Your task to perform on an android device: Search for hotels in Seattle Image 0: 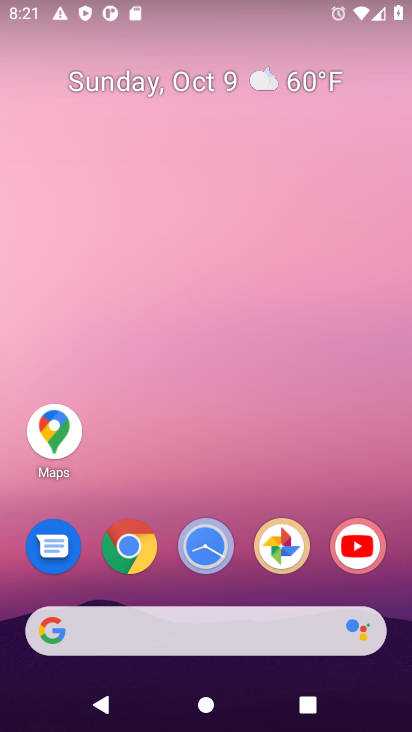
Step 0: click (123, 559)
Your task to perform on an android device: Search for hotels in Seattle Image 1: 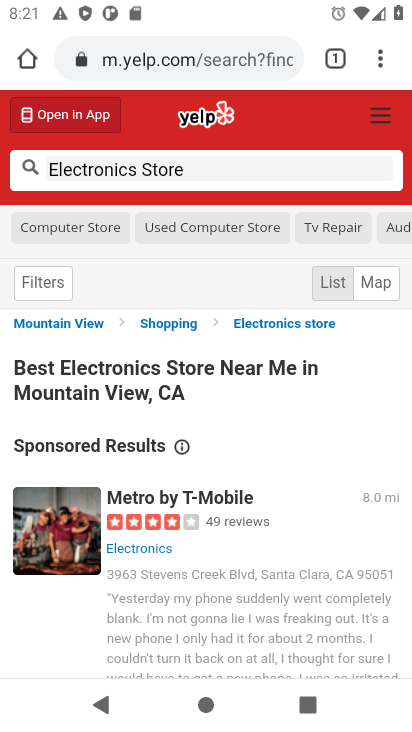
Step 1: click (213, 59)
Your task to perform on an android device: Search for hotels in Seattle Image 2: 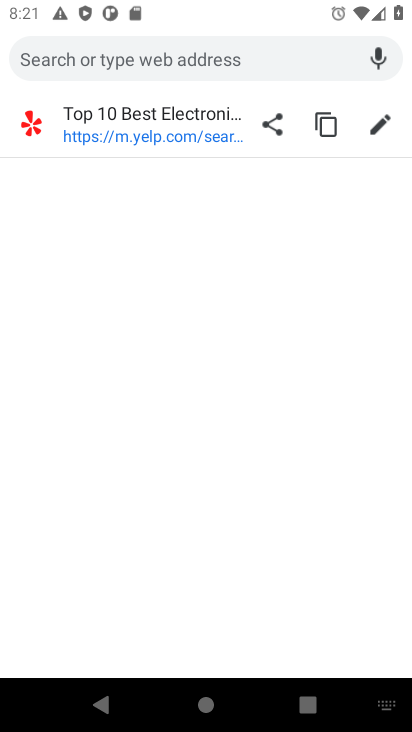
Step 2: type "hotels in seattle"
Your task to perform on an android device: Search for hotels in Seattle Image 3: 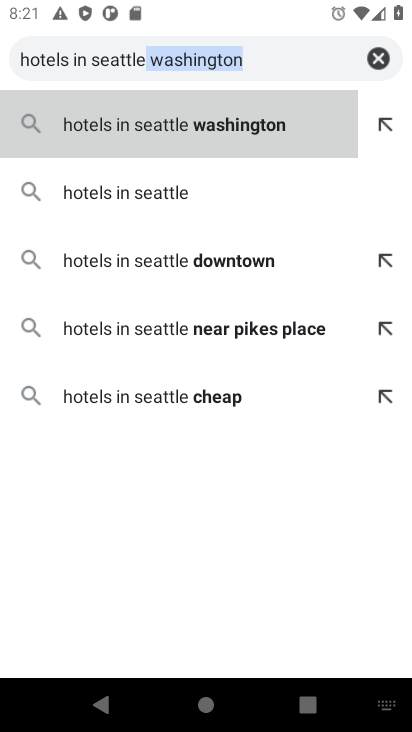
Step 3: press enter
Your task to perform on an android device: Search for hotels in Seattle Image 4: 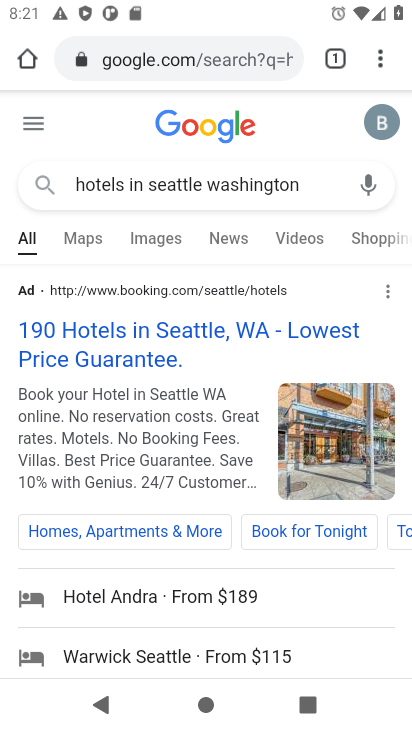
Step 4: drag from (178, 424) to (185, 360)
Your task to perform on an android device: Search for hotels in Seattle Image 5: 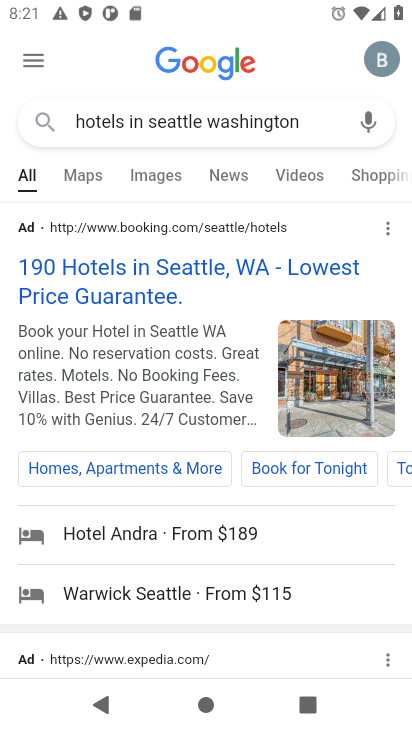
Step 5: click (151, 301)
Your task to perform on an android device: Search for hotels in Seattle Image 6: 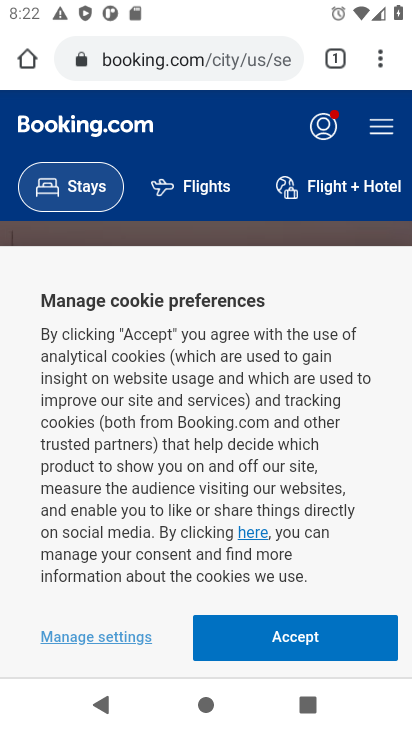
Step 6: click (296, 650)
Your task to perform on an android device: Search for hotels in Seattle Image 7: 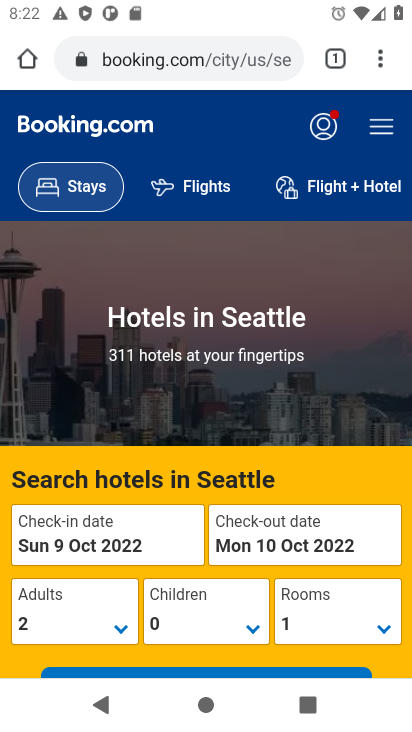
Step 7: drag from (290, 541) to (284, 332)
Your task to perform on an android device: Search for hotels in Seattle Image 8: 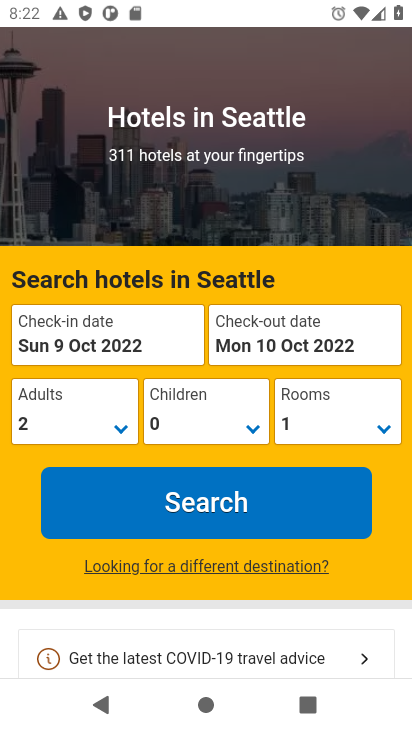
Step 8: click (272, 509)
Your task to perform on an android device: Search for hotels in Seattle Image 9: 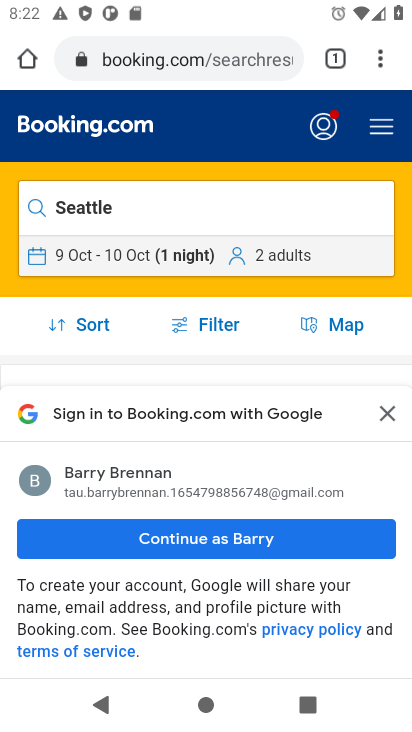
Step 9: drag from (338, 551) to (347, 485)
Your task to perform on an android device: Search for hotels in Seattle Image 10: 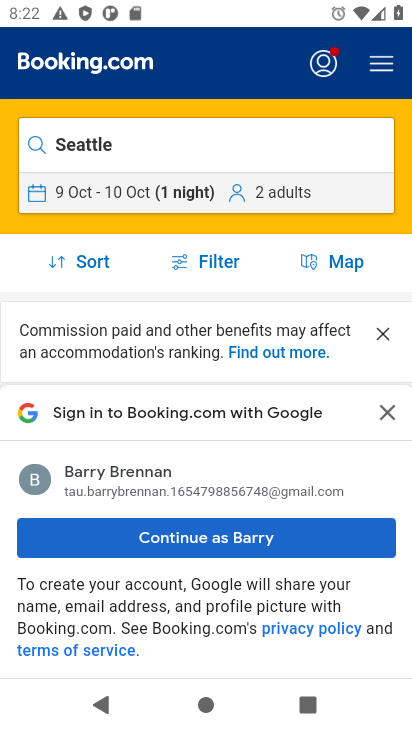
Step 10: click (320, 535)
Your task to perform on an android device: Search for hotels in Seattle Image 11: 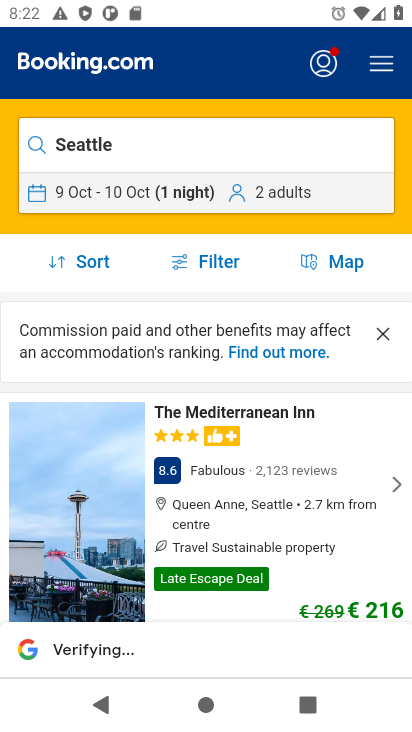
Step 11: drag from (323, 509) to (339, 320)
Your task to perform on an android device: Search for hotels in Seattle Image 12: 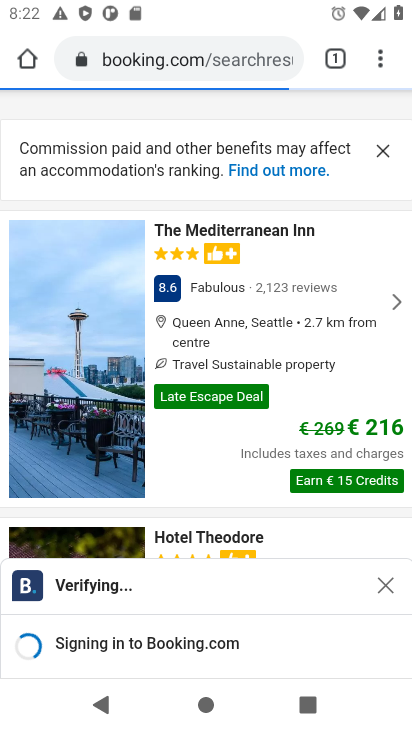
Step 12: drag from (347, 412) to (348, 376)
Your task to perform on an android device: Search for hotels in Seattle Image 13: 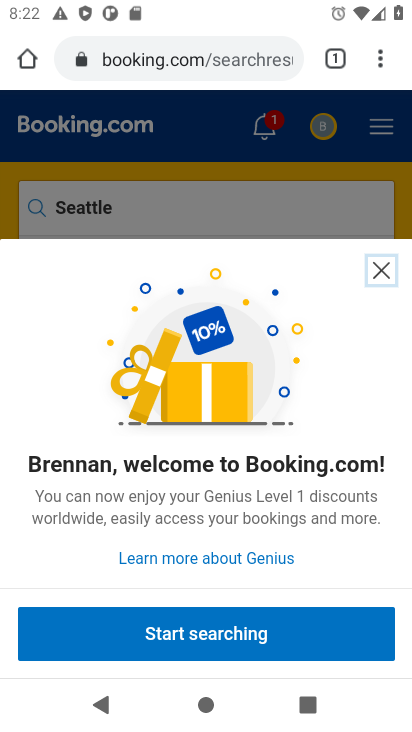
Step 13: click (382, 269)
Your task to perform on an android device: Search for hotels in Seattle Image 14: 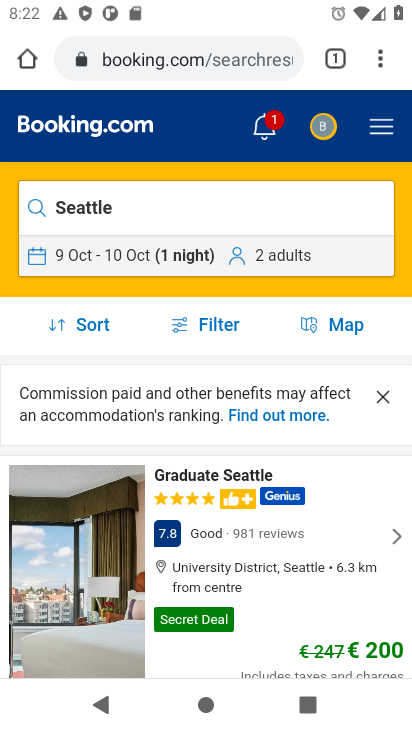
Step 14: task complete